Your task to perform on an android device: Open maps Image 0: 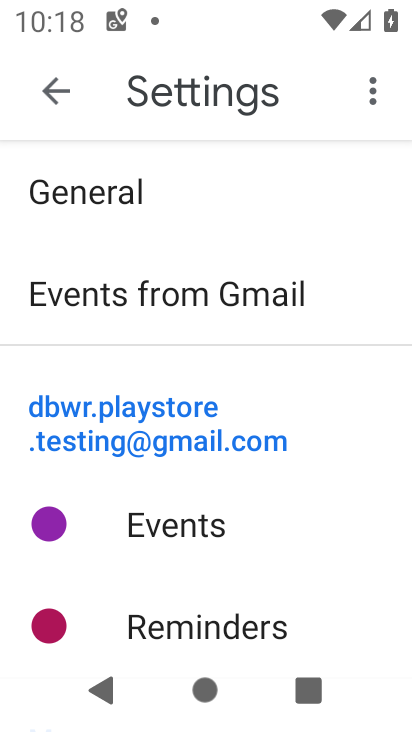
Step 0: press home button
Your task to perform on an android device: Open maps Image 1: 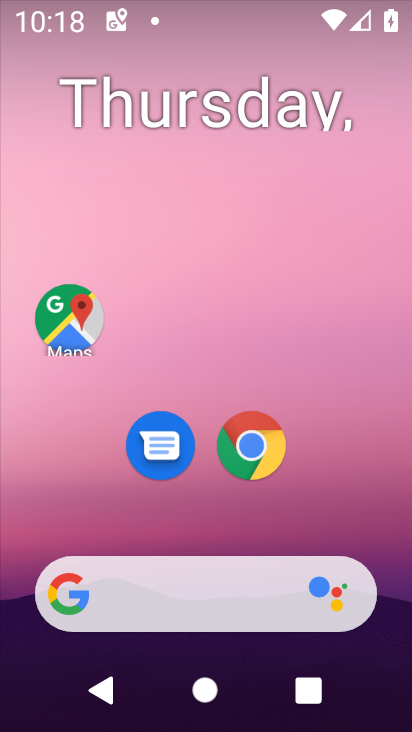
Step 1: drag from (343, 508) to (235, 31)
Your task to perform on an android device: Open maps Image 2: 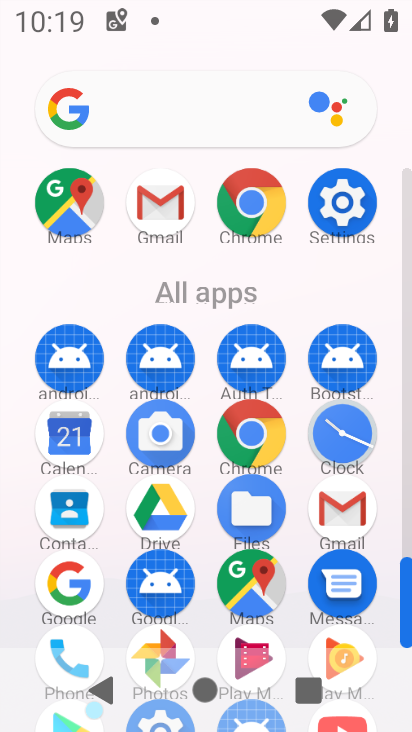
Step 2: click (263, 596)
Your task to perform on an android device: Open maps Image 3: 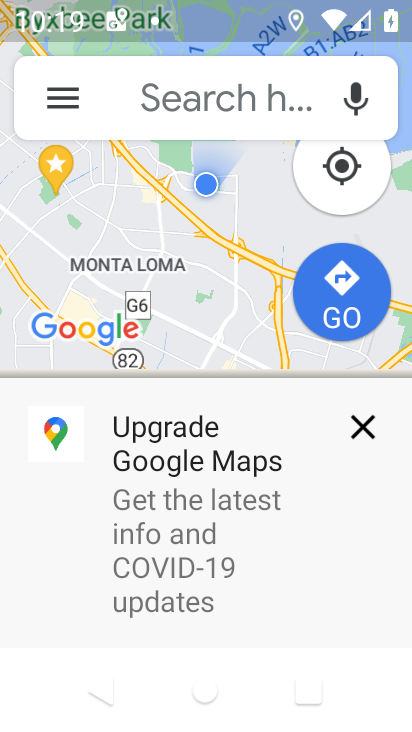
Step 3: click (345, 430)
Your task to perform on an android device: Open maps Image 4: 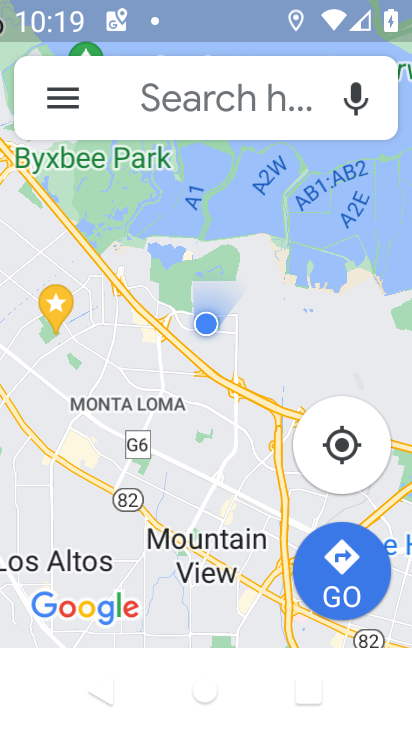
Step 4: task complete